Your task to perform on an android device: turn on data saver in the chrome app Image 0: 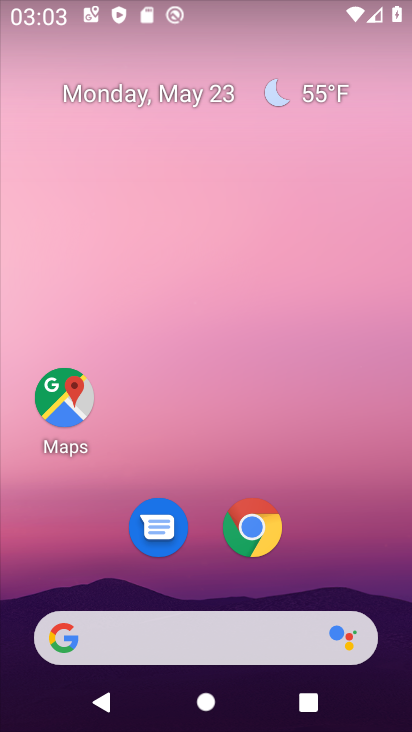
Step 0: drag from (350, 521) to (254, 12)
Your task to perform on an android device: turn on data saver in the chrome app Image 1: 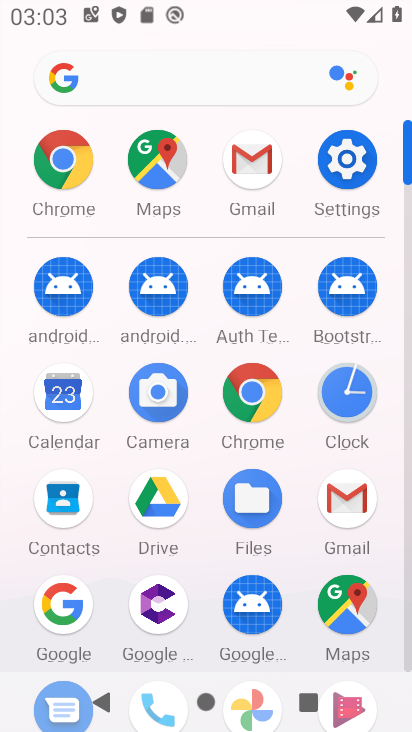
Step 1: drag from (11, 569) to (16, 244)
Your task to perform on an android device: turn on data saver in the chrome app Image 2: 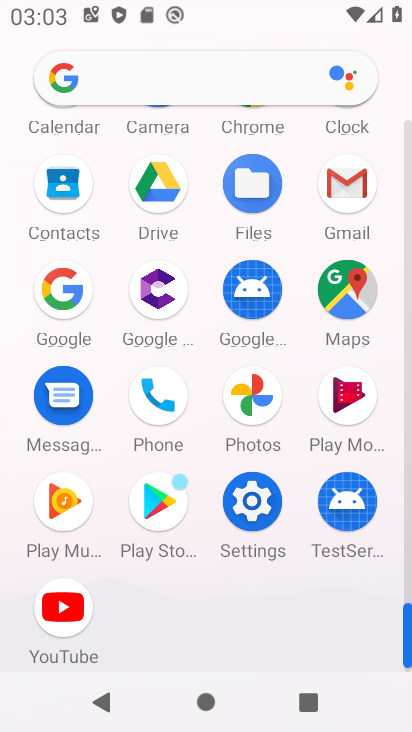
Step 2: drag from (14, 191) to (12, 630)
Your task to perform on an android device: turn on data saver in the chrome app Image 3: 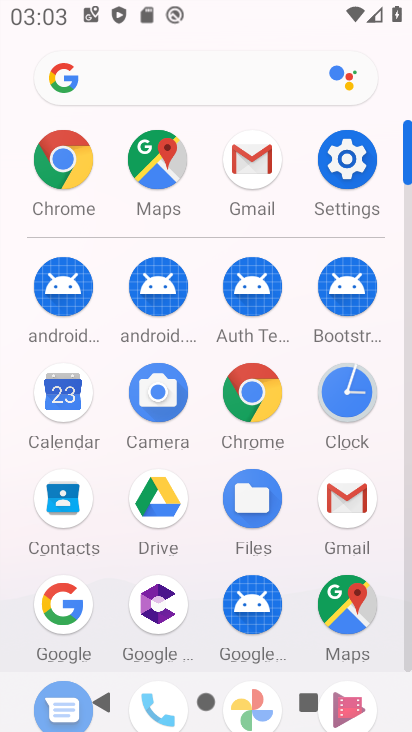
Step 3: click (251, 387)
Your task to perform on an android device: turn on data saver in the chrome app Image 4: 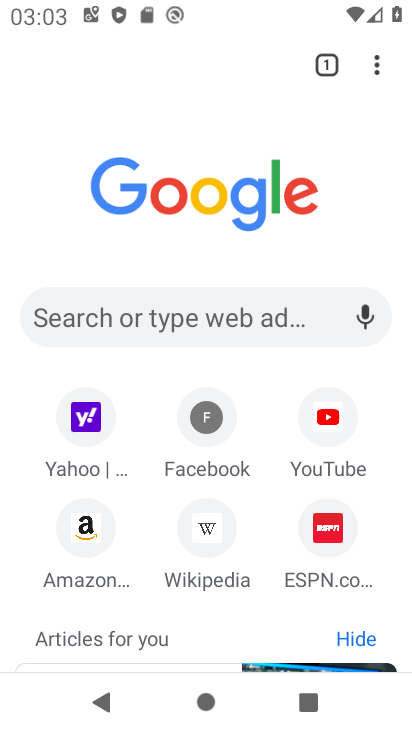
Step 4: drag from (371, 62) to (213, 538)
Your task to perform on an android device: turn on data saver in the chrome app Image 5: 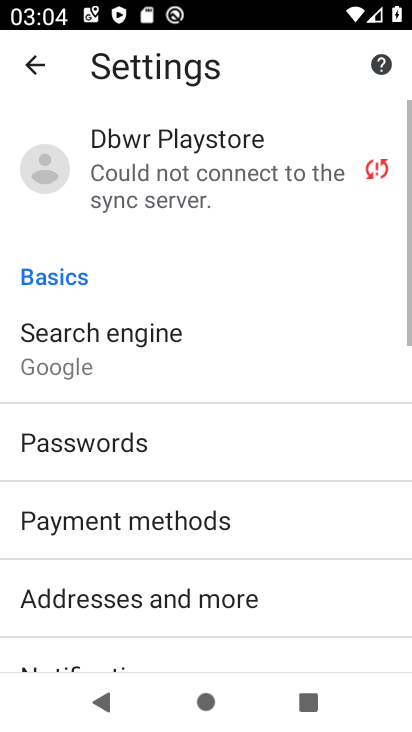
Step 5: drag from (207, 476) to (257, 126)
Your task to perform on an android device: turn on data saver in the chrome app Image 6: 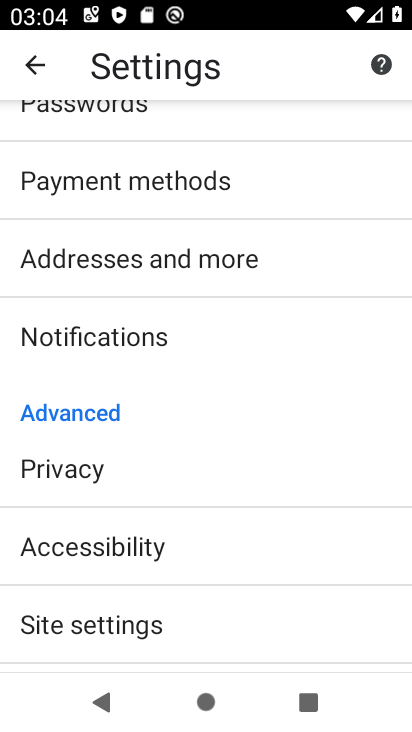
Step 6: drag from (249, 558) to (263, 146)
Your task to perform on an android device: turn on data saver in the chrome app Image 7: 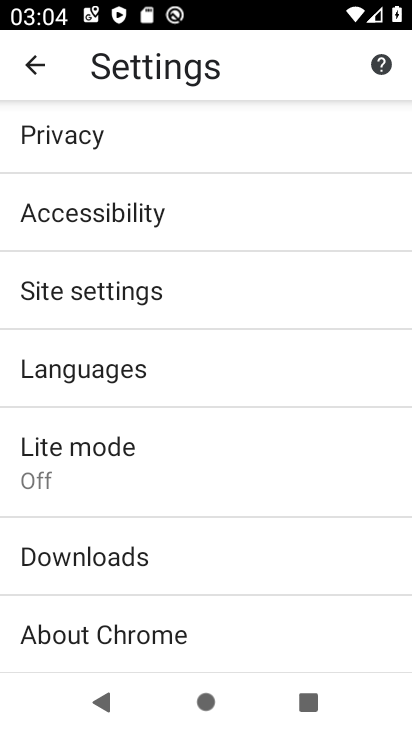
Step 7: drag from (220, 559) to (241, 180)
Your task to perform on an android device: turn on data saver in the chrome app Image 8: 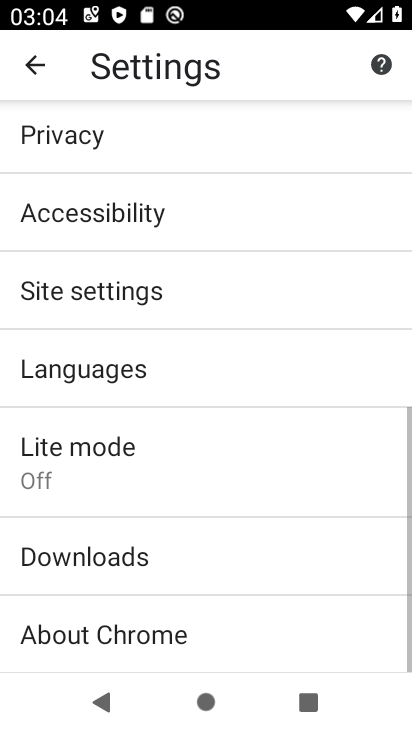
Step 8: click (144, 457)
Your task to perform on an android device: turn on data saver in the chrome app Image 9: 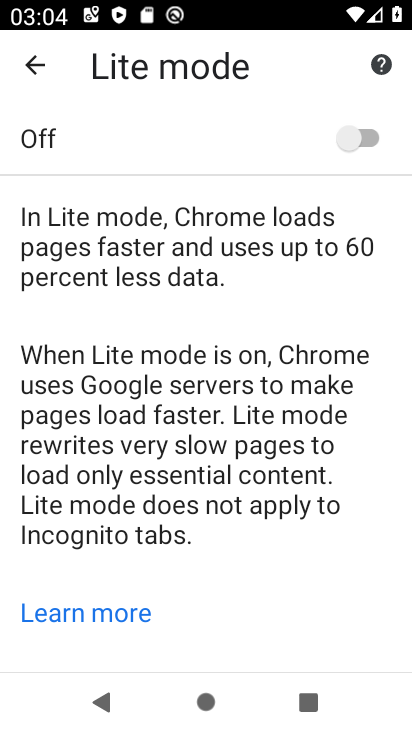
Step 9: click (354, 128)
Your task to perform on an android device: turn on data saver in the chrome app Image 10: 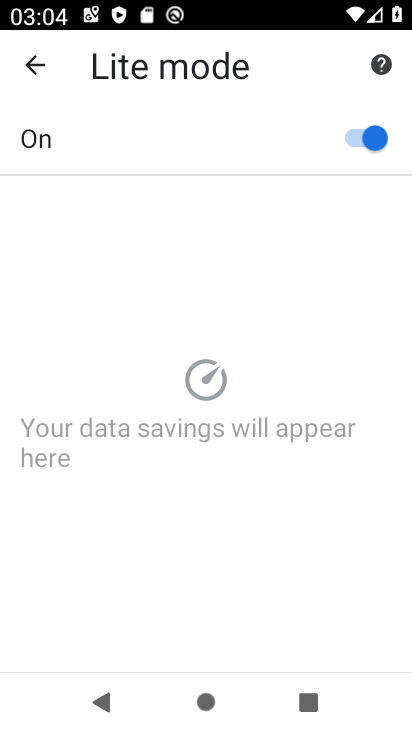
Step 10: task complete